Your task to perform on an android device: turn on location history Image 0: 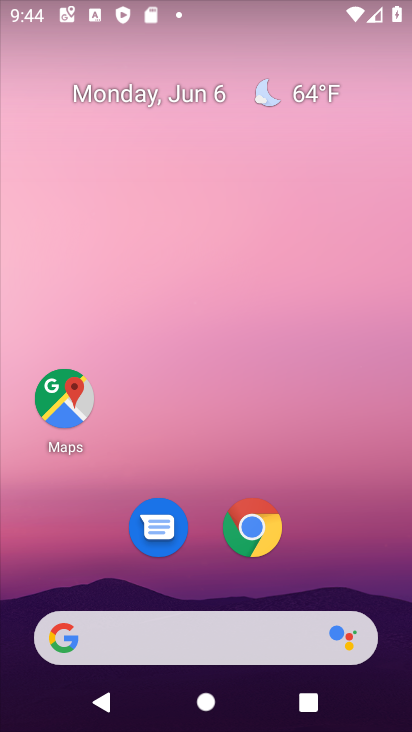
Step 0: drag from (251, 498) to (280, 215)
Your task to perform on an android device: turn on location history Image 1: 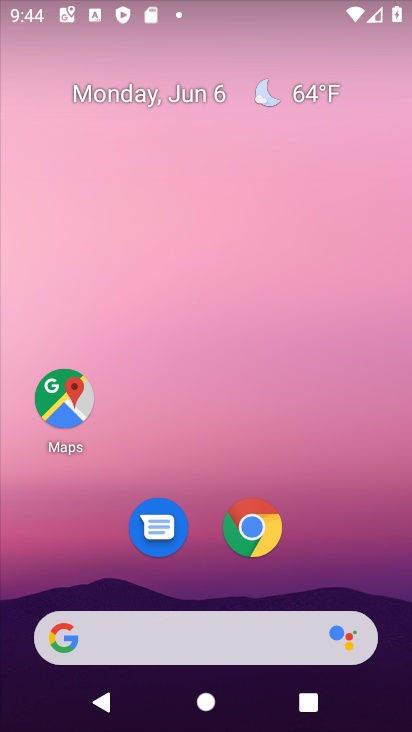
Step 1: drag from (160, 663) to (277, 281)
Your task to perform on an android device: turn on location history Image 2: 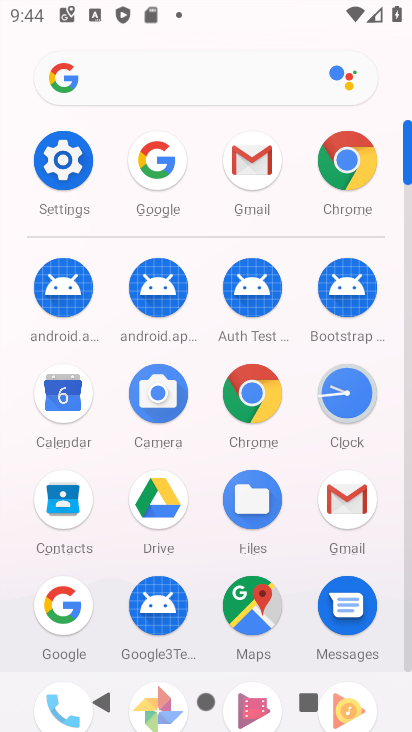
Step 2: click (75, 178)
Your task to perform on an android device: turn on location history Image 3: 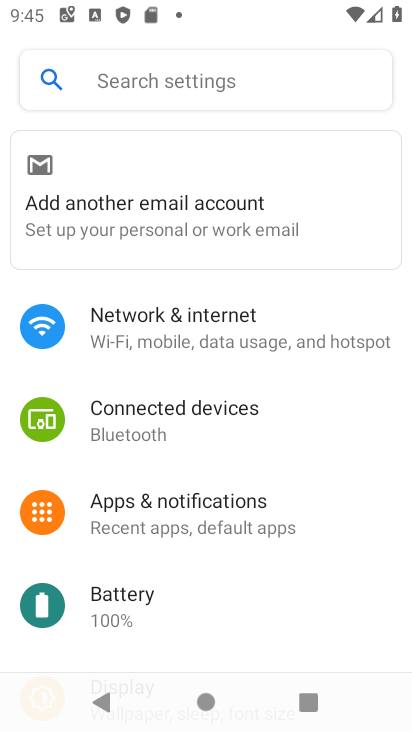
Step 3: drag from (196, 462) to (218, 277)
Your task to perform on an android device: turn on location history Image 4: 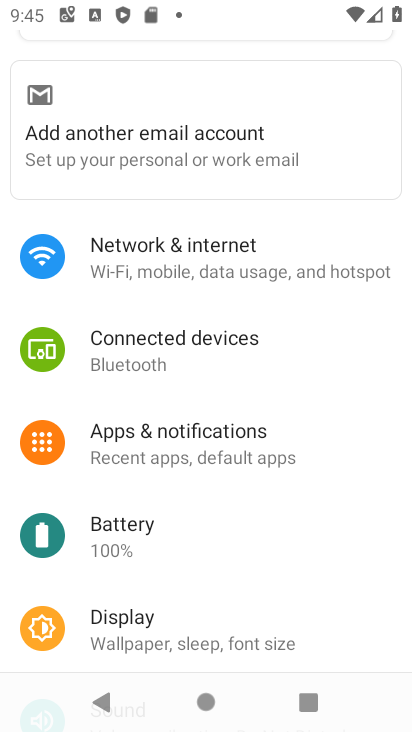
Step 4: drag from (145, 540) to (171, 255)
Your task to perform on an android device: turn on location history Image 5: 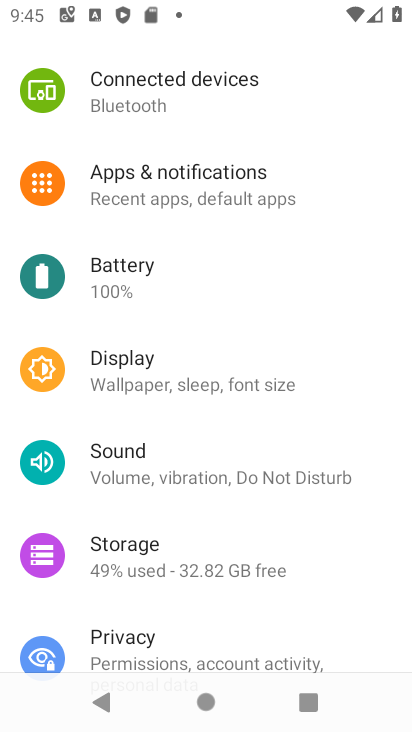
Step 5: drag from (153, 578) to (150, 335)
Your task to perform on an android device: turn on location history Image 6: 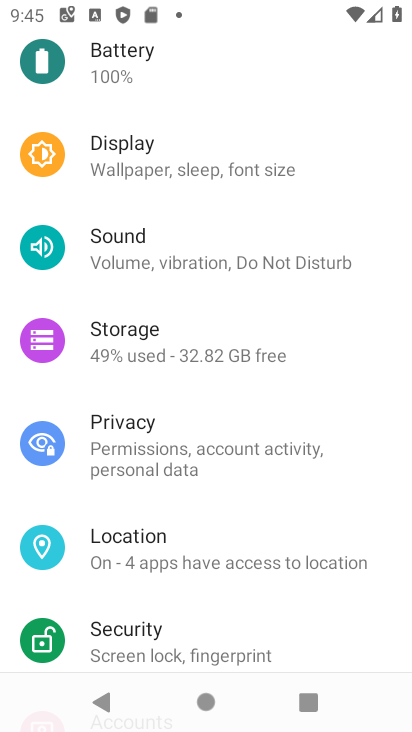
Step 6: click (141, 559)
Your task to perform on an android device: turn on location history Image 7: 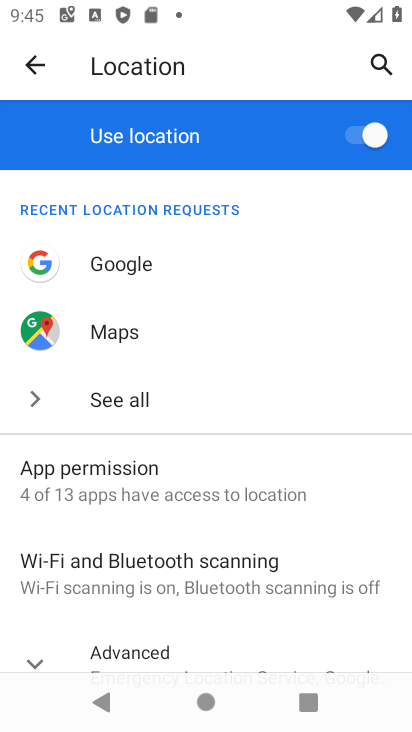
Step 7: drag from (211, 575) to (337, 154)
Your task to perform on an android device: turn on location history Image 8: 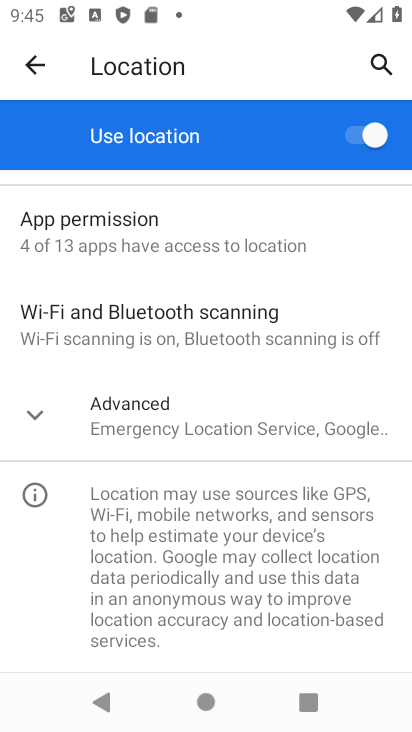
Step 8: click (234, 419)
Your task to perform on an android device: turn on location history Image 9: 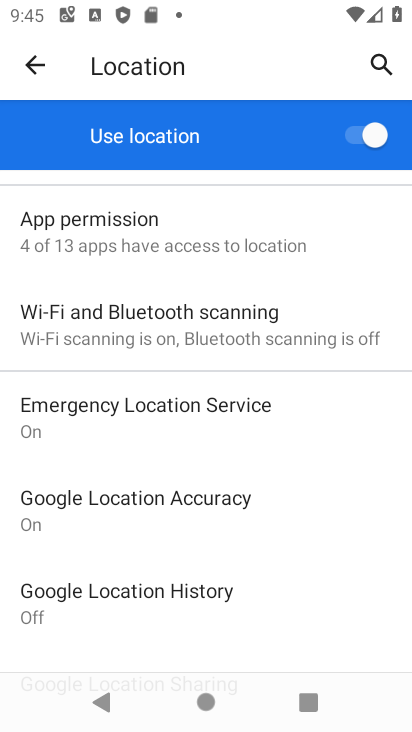
Step 9: click (175, 607)
Your task to perform on an android device: turn on location history Image 10: 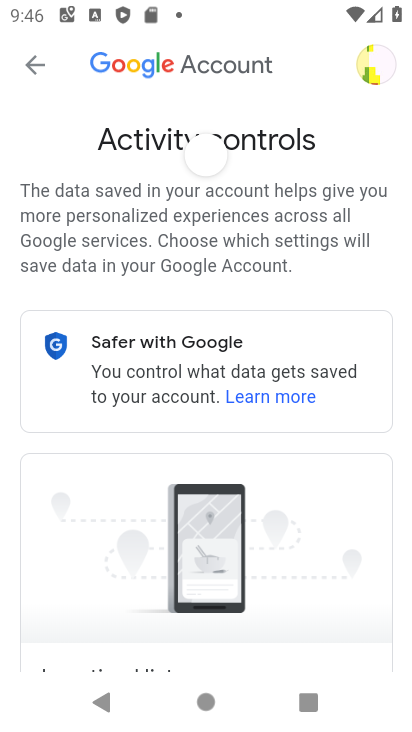
Step 10: drag from (212, 562) to (152, 188)
Your task to perform on an android device: turn on location history Image 11: 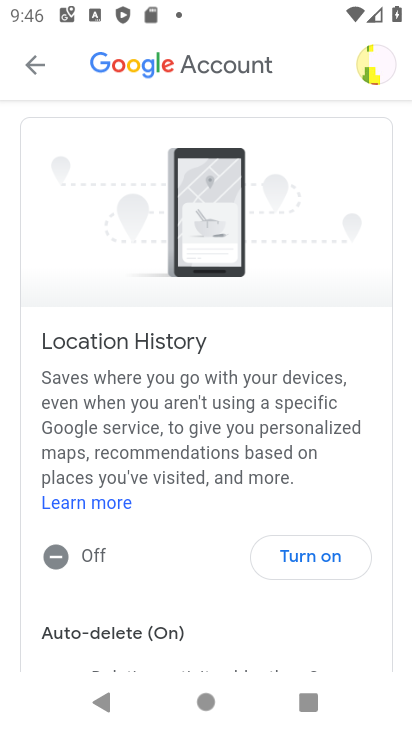
Step 11: click (311, 557)
Your task to perform on an android device: turn on location history Image 12: 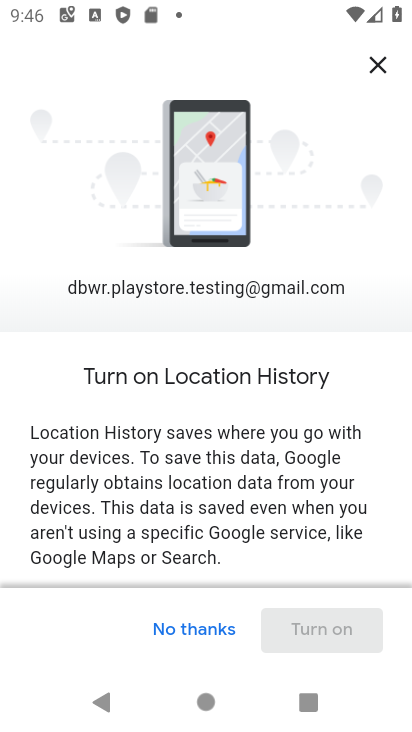
Step 12: drag from (301, 505) to (336, 139)
Your task to perform on an android device: turn on location history Image 13: 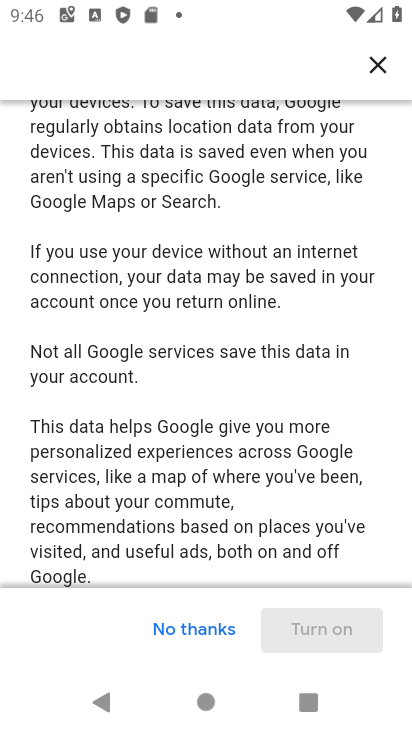
Step 13: drag from (300, 498) to (324, 109)
Your task to perform on an android device: turn on location history Image 14: 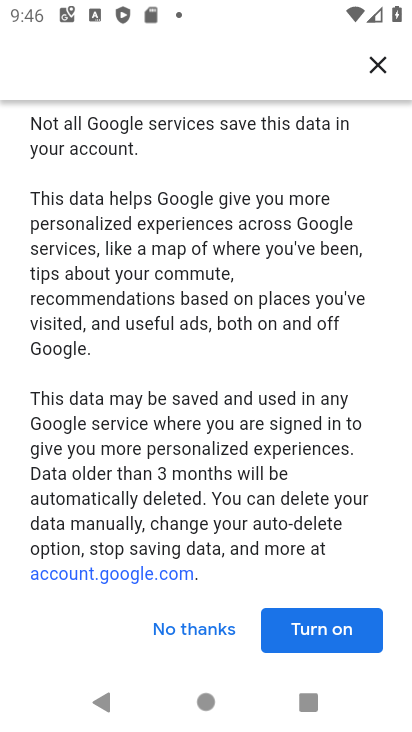
Step 14: click (340, 637)
Your task to perform on an android device: turn on location history Image 15: 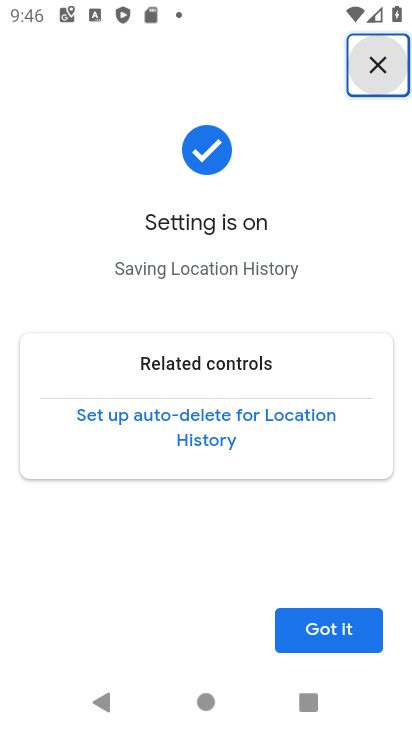
Step 15: click (333, 622)
Your task to perform on an android device: turn on location history Image 16: 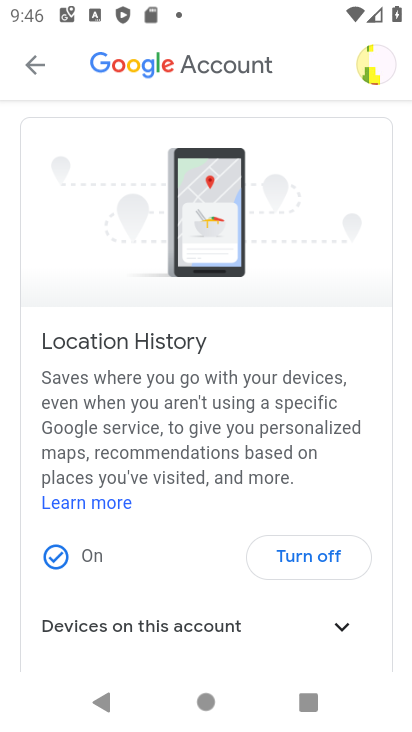
Step 16: task complete